Your task to perform on an android device: star an email in the gmail app Image 0: 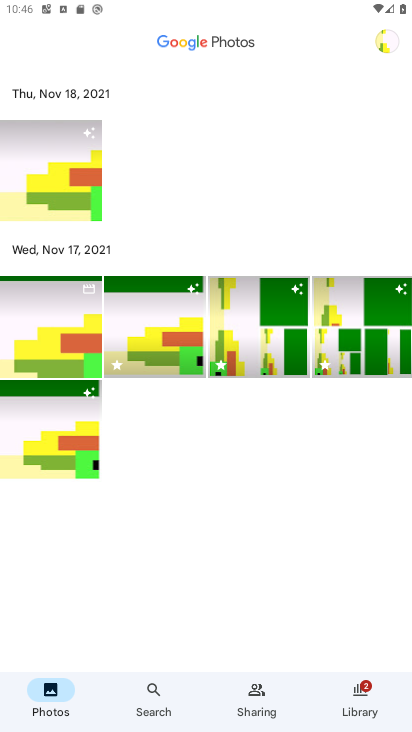
Step 0: press home button
Your task to perform on an android device: star an email in the gmail app Image 1: 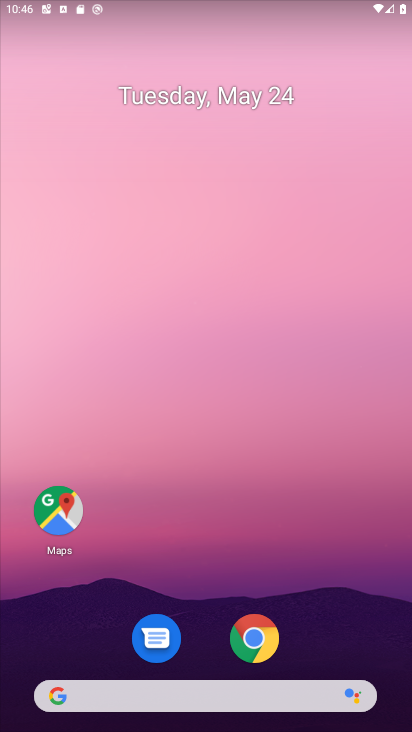
Step 1: drag from (169, 721) to (153, 240)
Your task to perform on an android device: star an email in the gmail app Image 2: 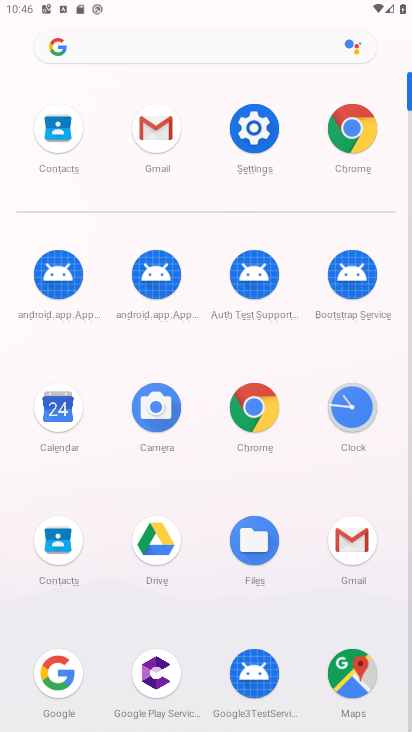
Step 2: click (365, 536)
Your task to perform on an android device: star an email in the gmail app Image 3: 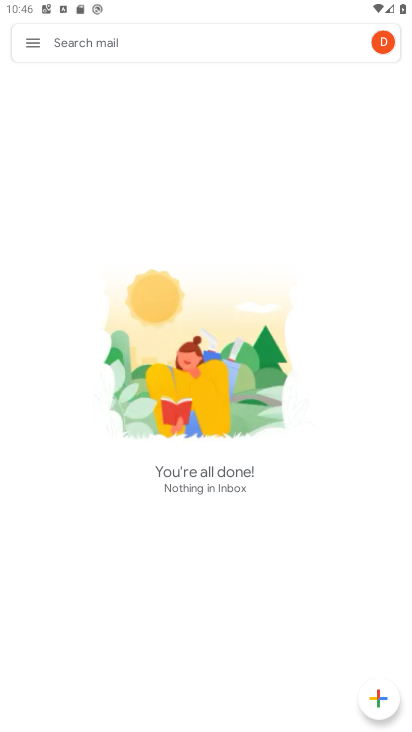
Step 3: task complete